Your task to perform on an android device: Go to Amazon Image 0: 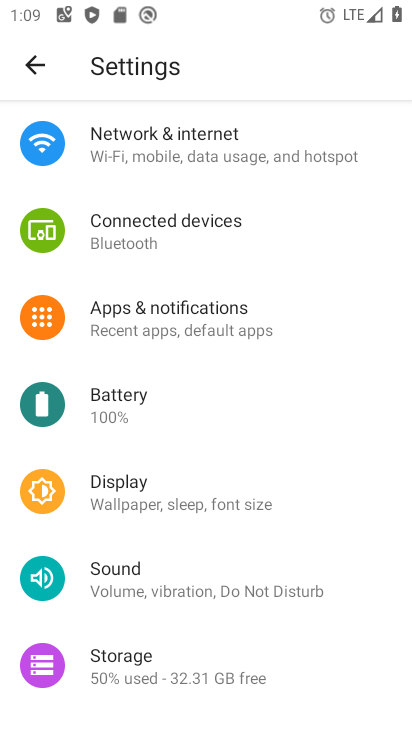
Step 0: press home button
Your task to perform on an android device: Go to Amazon Image 1: 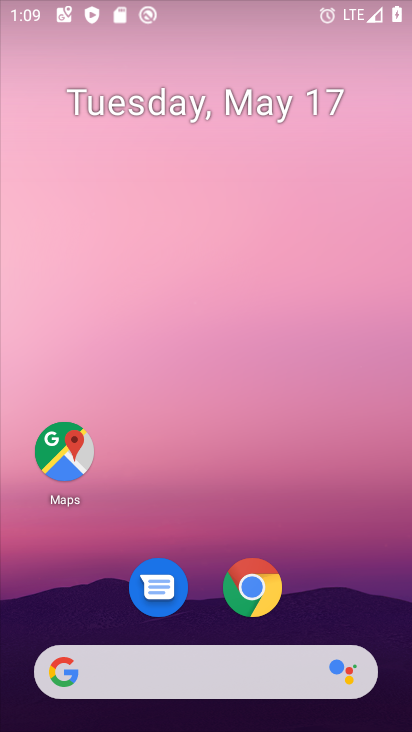
Step 1: drag from (392, 653) to (312, 49)
Your task to perform on an android device: Go to Amazon Image 2: 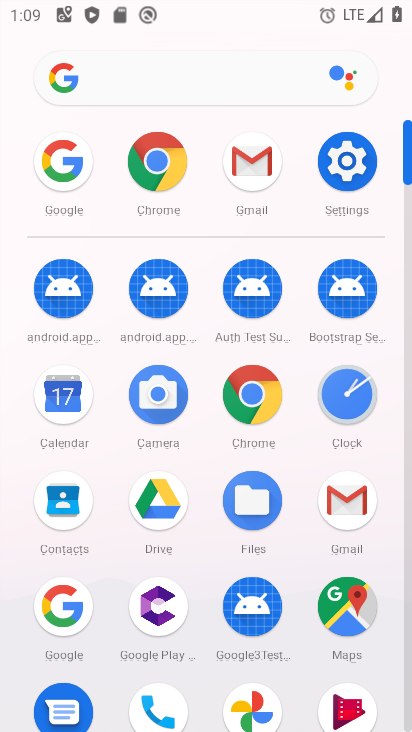
Step 2: click (152, 161)
Your task to perform on an android device: Go to Amazon Image 3: 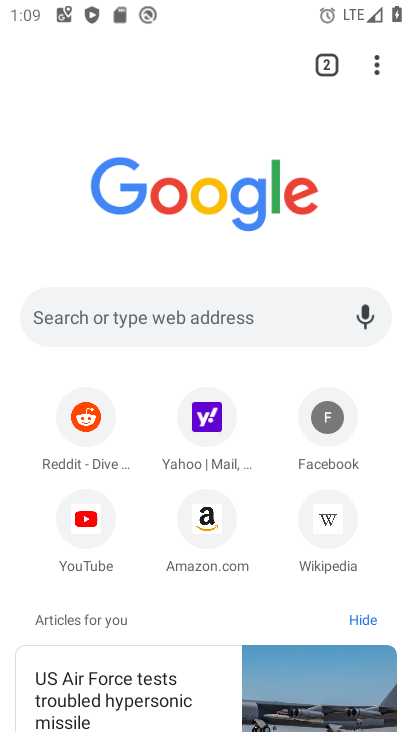
Step 3: click (200, 516)
Your task to perform on an android device: Go to Amazon Image 4: 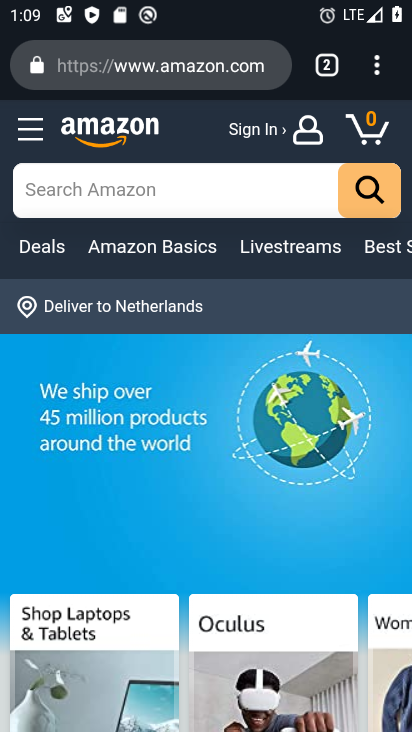
Step 4: task complete